Your task to perform on an android device: Go to network settings Image 0: 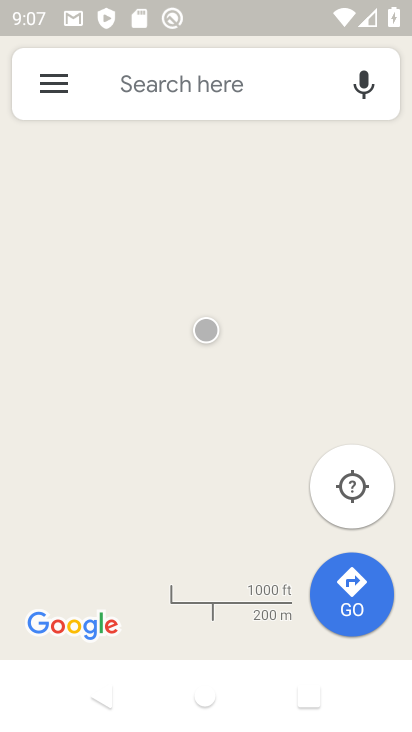
Step 0: press home button
Your task to perform on an android device: Go to network settings Image 1: 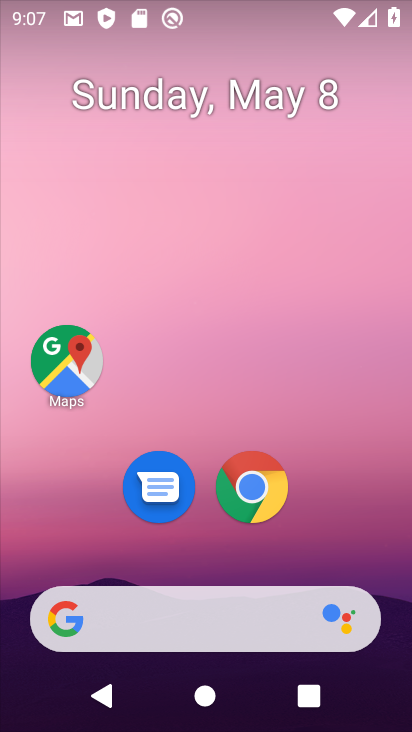
Step 1: drag from (200, 518) to (264, 52)
Your task to perform on an android device: Go to network settings Image 2: 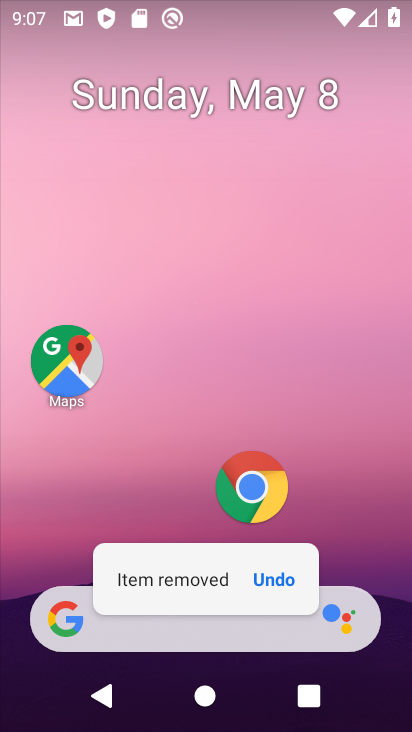
Step 2: drag from (353, 488) to (368, 31)
Your task to perform on an android device: Go to network settings Image 3: 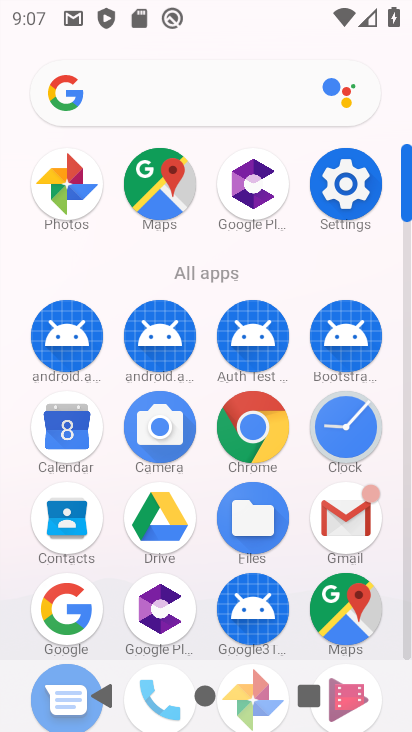
Step 3: click (345, 184)
Your task to perform on an android device: Go to network settings Image 4: 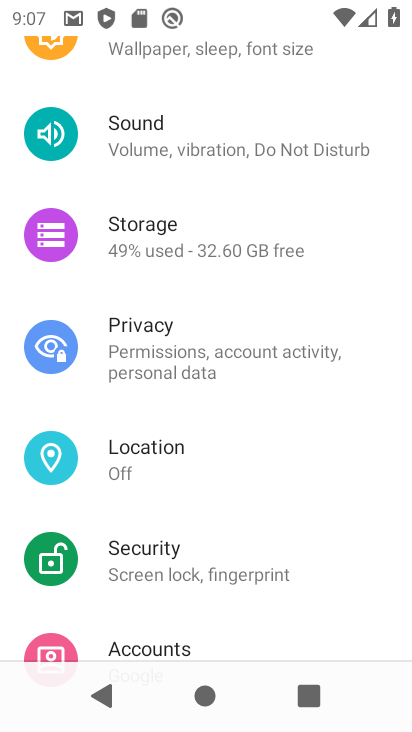
Step 4: drag from (249, 228) to (232, 728)
Your task to perform on an android device: Go to network settings Image 5: 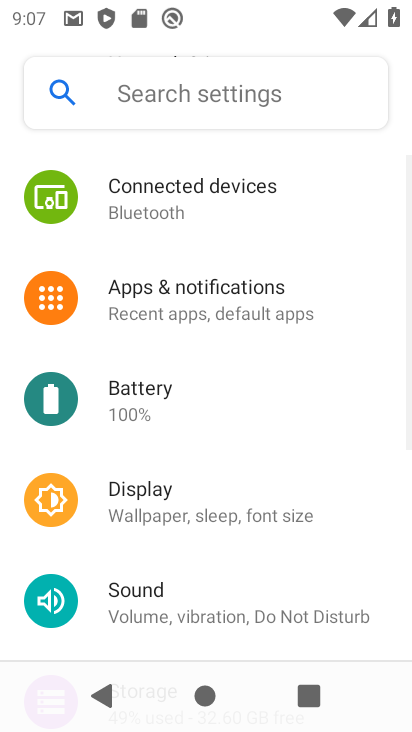
Step 5: drag from (218, 395) to (241, 643)
Your task to perform on an android device: Go to network settings Image 6: 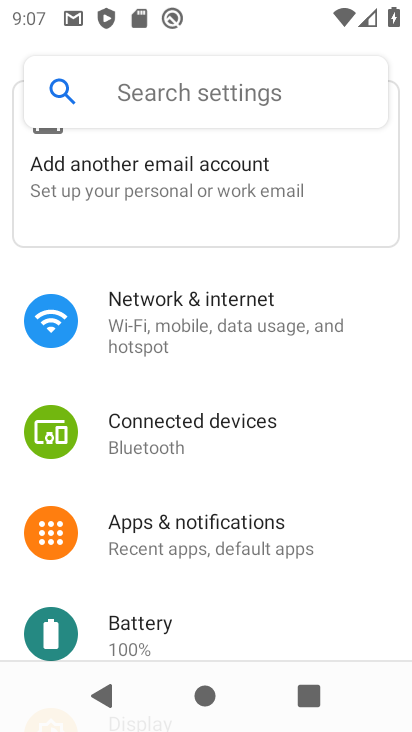
Step 6: click (252, 315)
Your task to perform on an android device: Go to network settings Image 7: 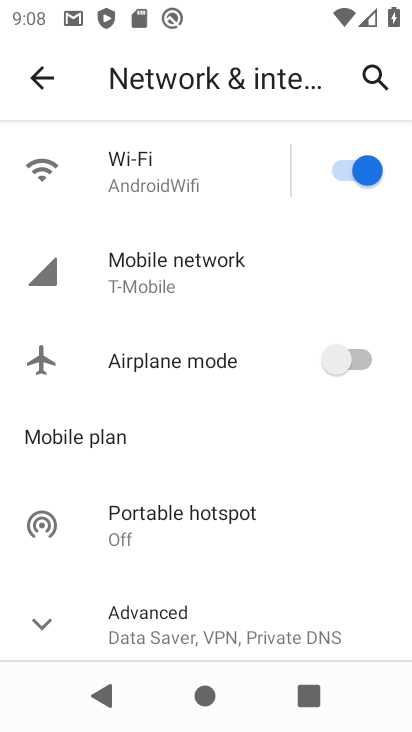
Step 7: task complete